Your task to perform on an android device: Open the web browser Image 0: 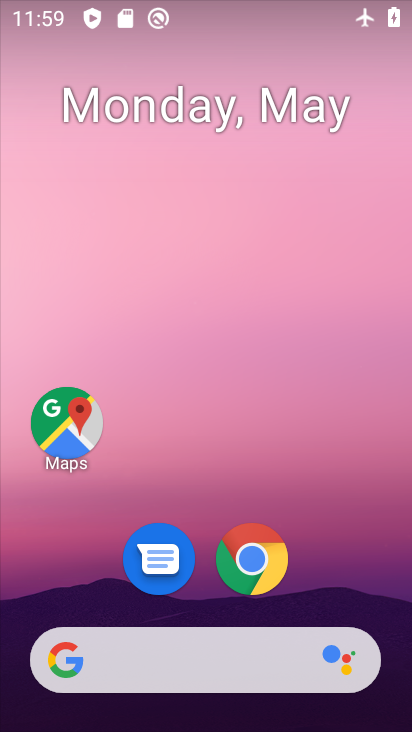
Step 0: drag from (76, 606) to (316, 192)
Your task to perform on an android device: Open the web browser Image 1: 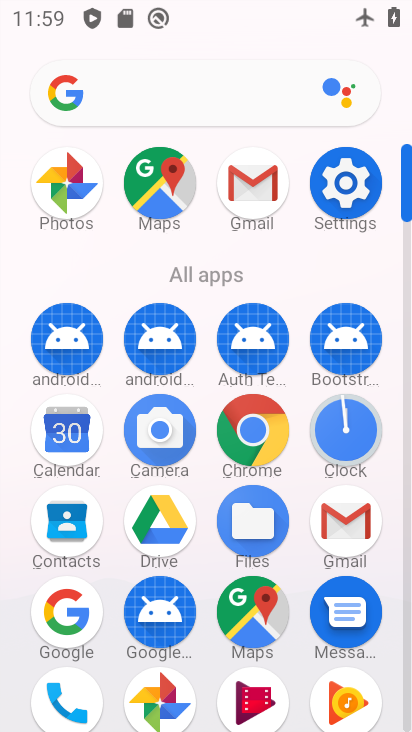
Step 1: drag from (194, 590) to (269, 384)
Your task to perform on an android device: Open the web browser Image 2: 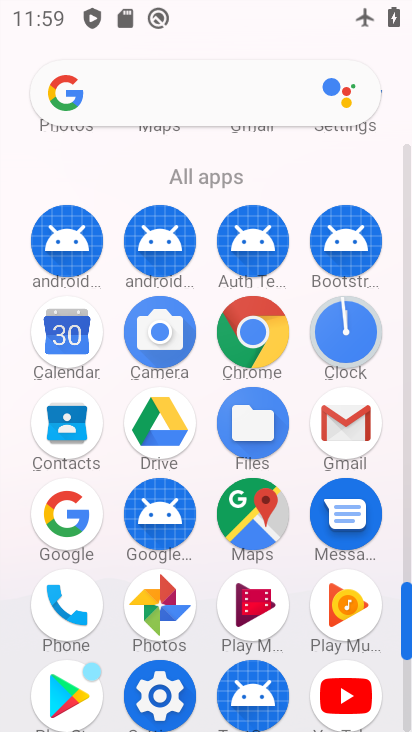
Step 2: click (78, 517)
Your task to perform on an android device: Open the web browser Image 3: 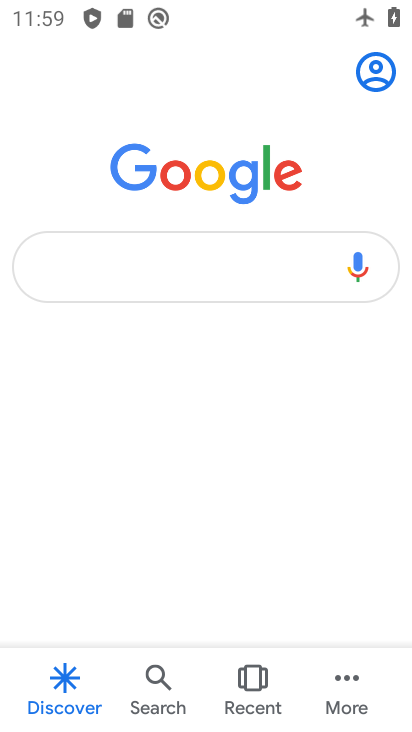
Step 3: task complete